Your task to perform on an android device: Open the phone app and click the voicemail tab. Image 0: 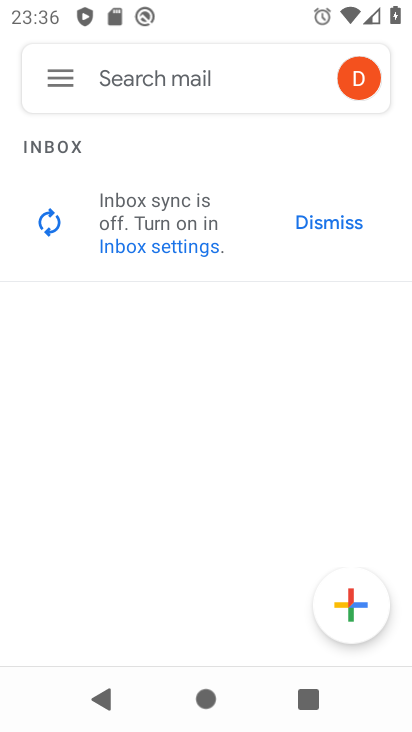
Step 0: press home button
Your task to perform on an android device: Open the phone app and click the voicemail tab. Image 1: 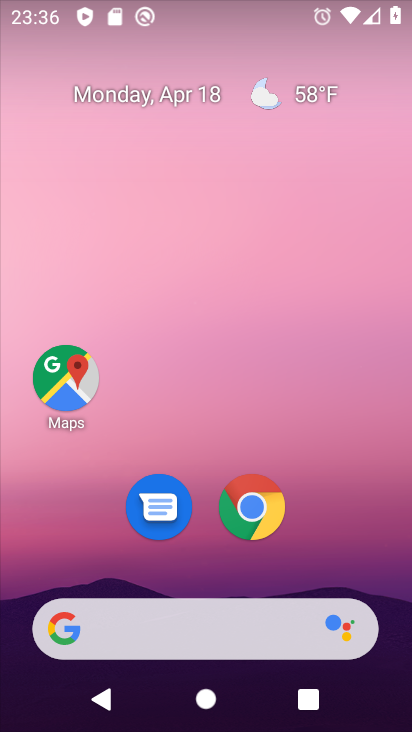
Step 1: drag from (217, 432) to (396, 289)
Your task to perform on an android device: Open the phone app and click the voicemail tab. Image 2: 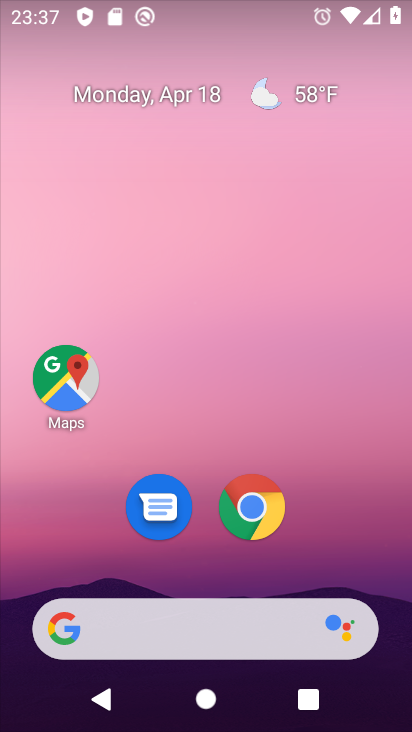
Step 2: drag from (214, 469) to (181, 39)
Your task to perform on an android device: Open the phone app and click the voicemail tab. Image 3: 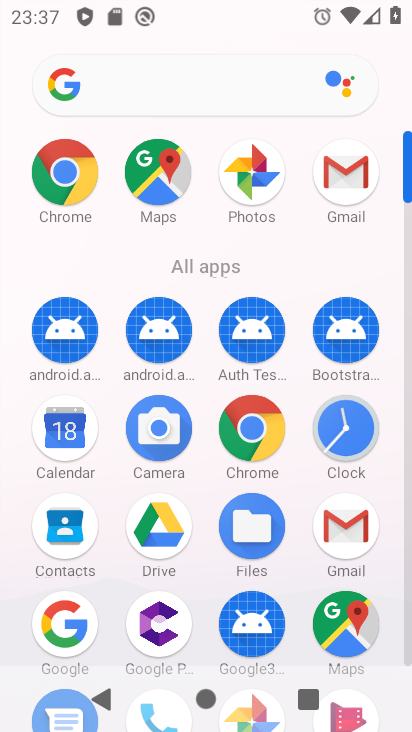
Step 3: drag from (223, 573) to (189, 105)
Your task to perform on an android device: Open the phone app and click the voicemail tab. Image 4: 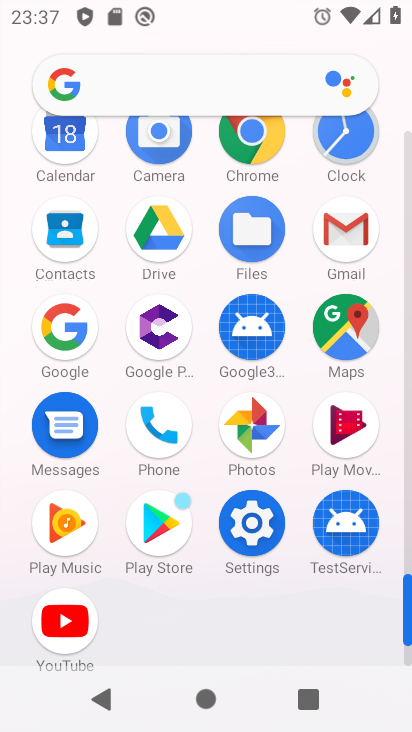
Step 4: click (146, 430)
Your task to perform on an android device: Open the phone app and click the voicemail tab. Image 5: 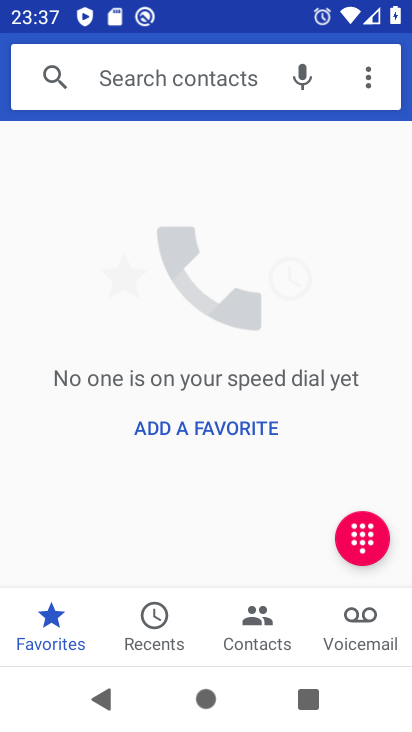
Step 5: click (371, 629)
Your task to perform on an android device: Open the phone app and click the voicemail tab. Image 6: 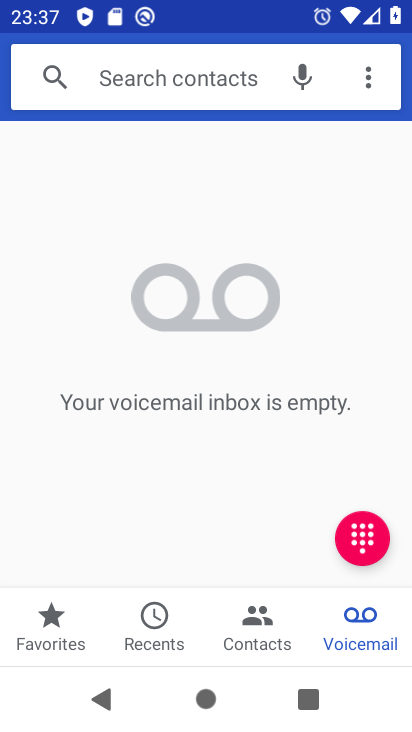
Step 6: task complete